Your task to perform on an android device: Open Youtube and go to the subscriptions tab Image 0: 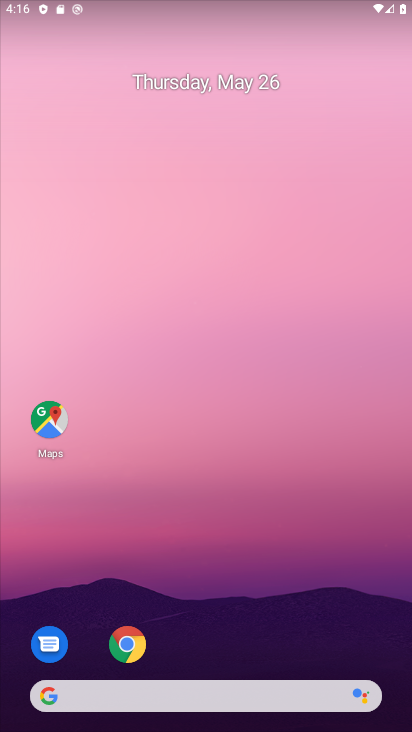
Step 0: drag from (219, 553) to (149, 28)
Your task to perform on an android device: Open Youtube and go to the subscriptions tab Image 1: 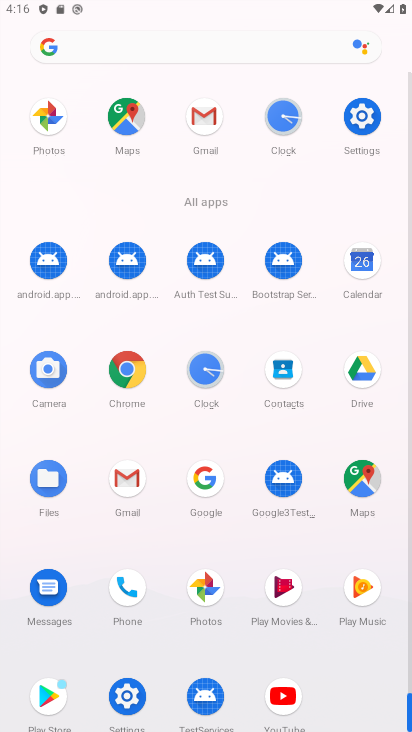
Step 1: drag from (14, 544) to (15, 222)
Your task to perform on an android device: Open Youtube and go to the subscriptions tab Image 2: 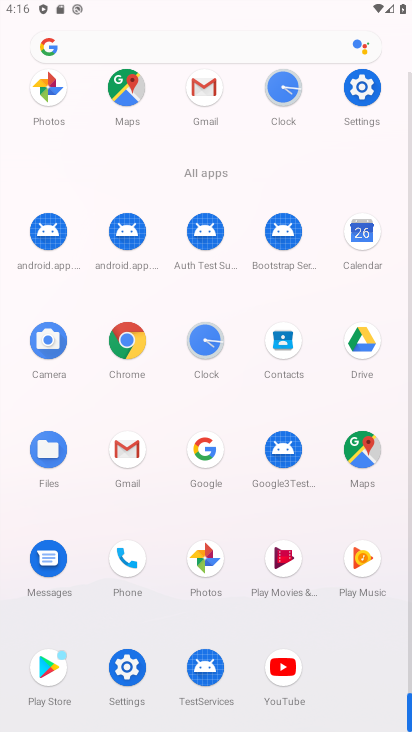
Step 2: click (284, 662)
Your task to perform on an android device: Open Youtube and go to the subscriptions tab Image 3: 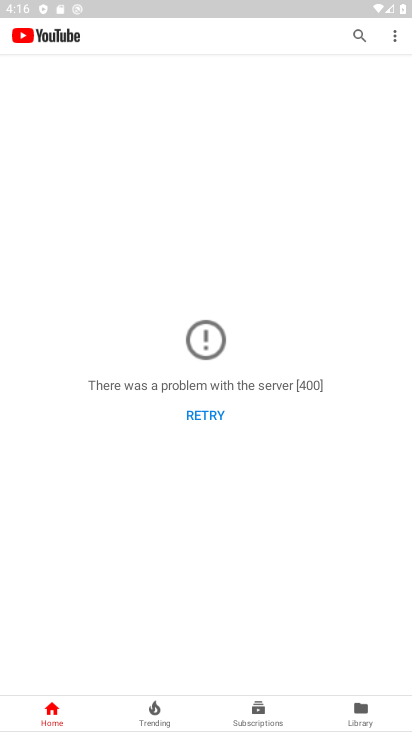
Step 3: click (272, 708)
Your task to perform on an android device: Open Youtube and go to the subscriptions tab Image 4: 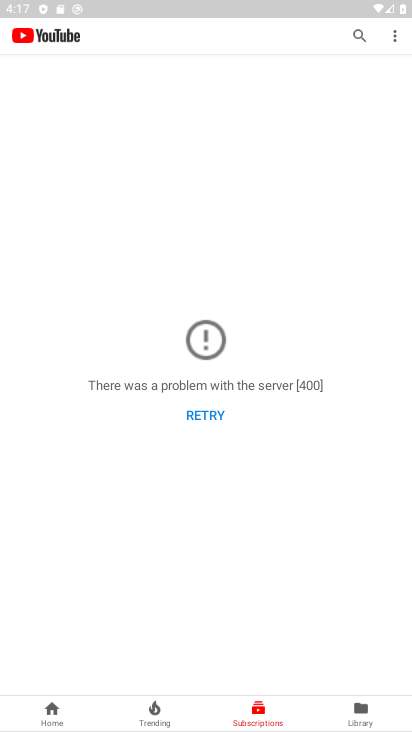
Step 4: task complete